Your task to perform on an android device: Show me popular videos on Youtube Image 0: 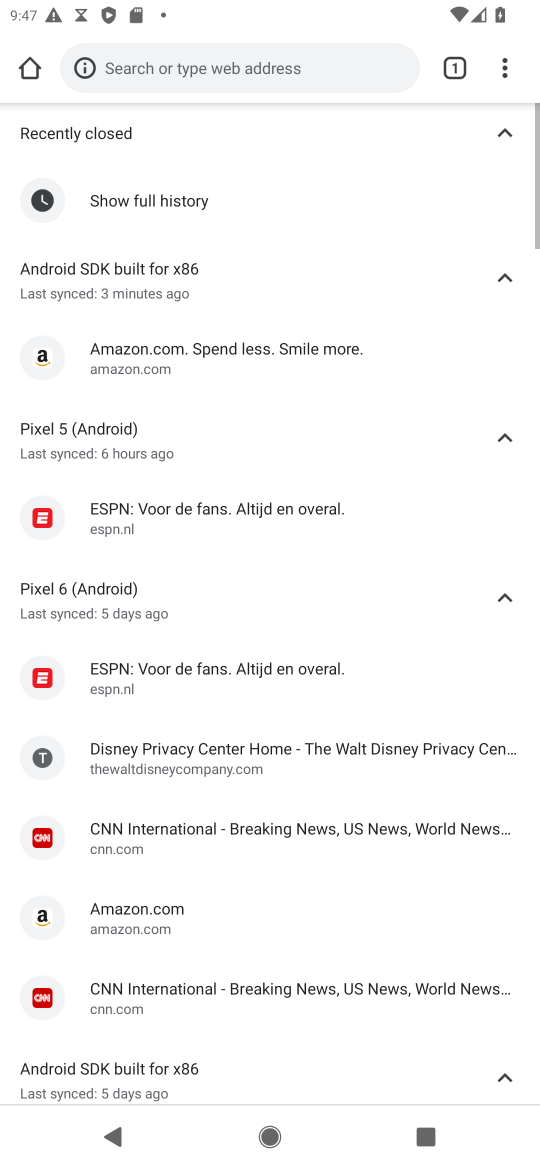
Step 0: press home button
Your task to perform on an android device: Show me popular videos on Youtube Image 1: 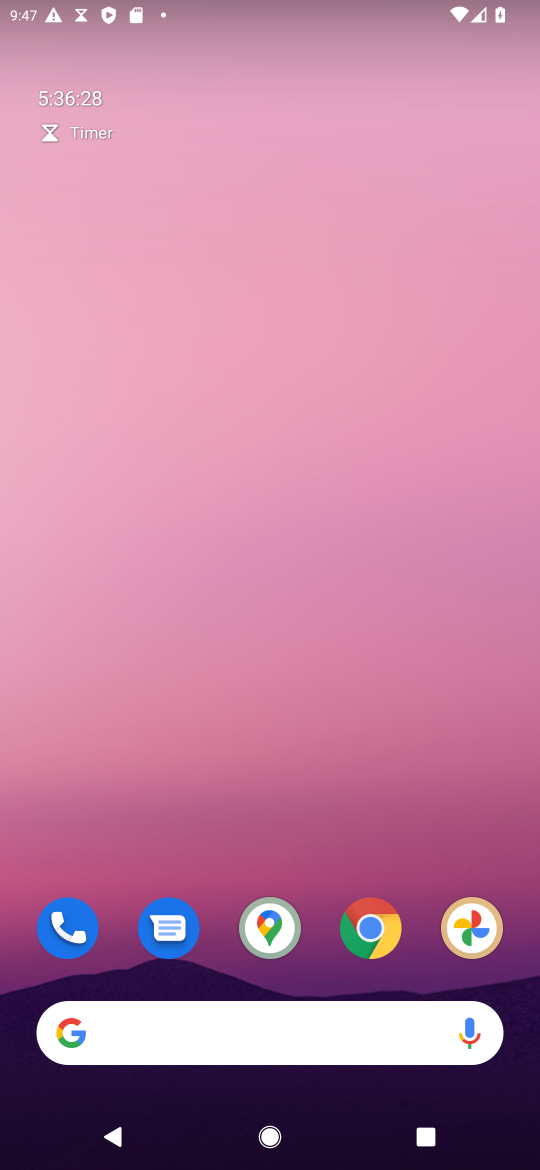
Step 1: drag from (420, 809) to (470, 31)
Your task to perform on an android device: Show me popular videos on Youtube Image 2: 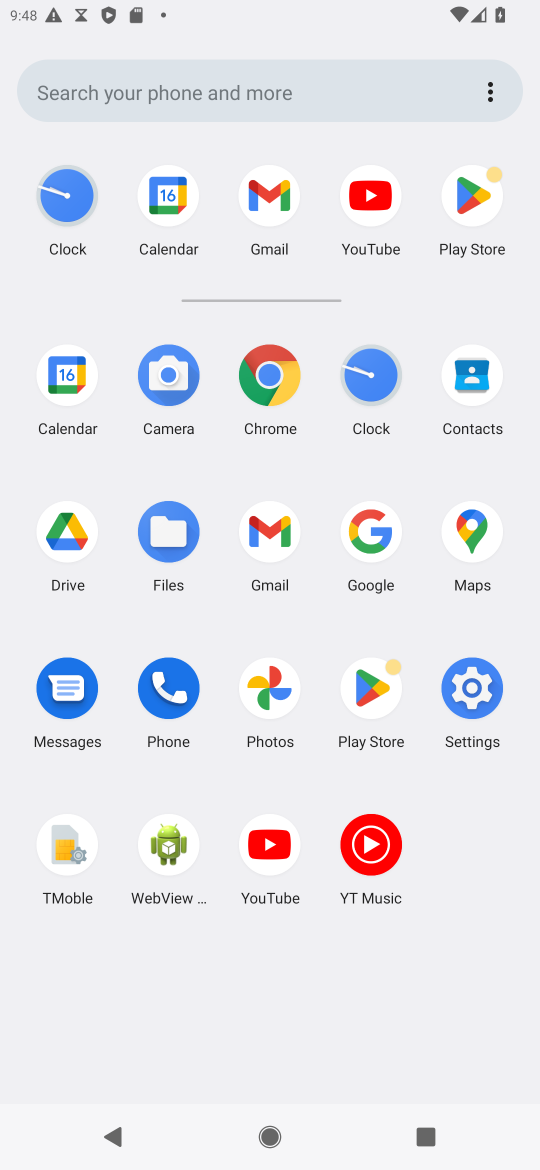
Step 2: click (254, 855)
Your task to perform on an android device: Show me popular videos on Youtube Image 3: 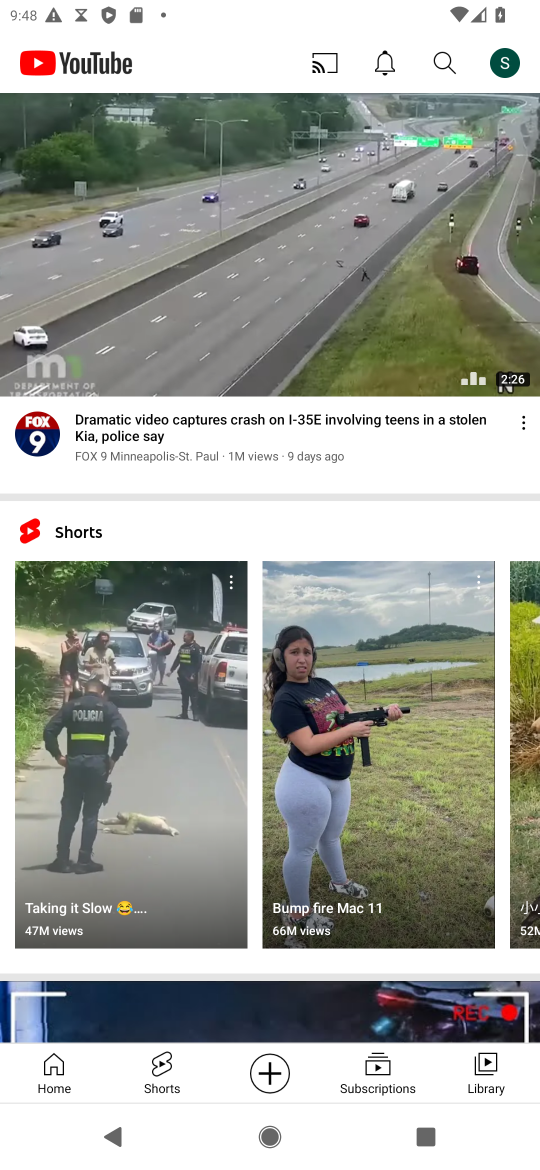
Step 3: click (44, 1074)
Your task to perform on an android device: Show me popular videos on Youtube Image 4: 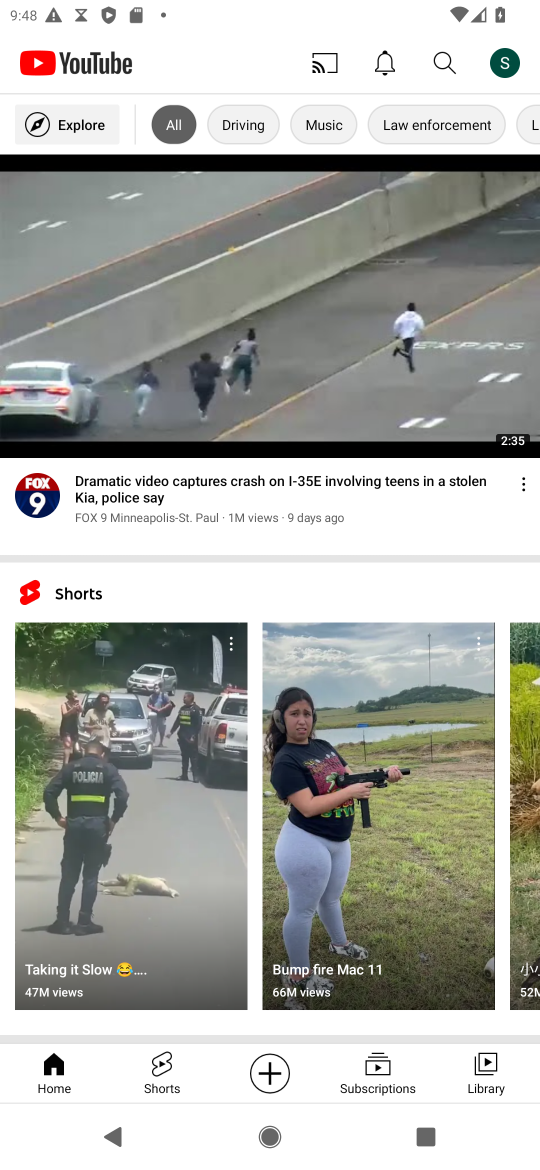
Step 4: click (69, 124)
Your task to perform on an android device: Show me popular videos on Youtube Image 5: 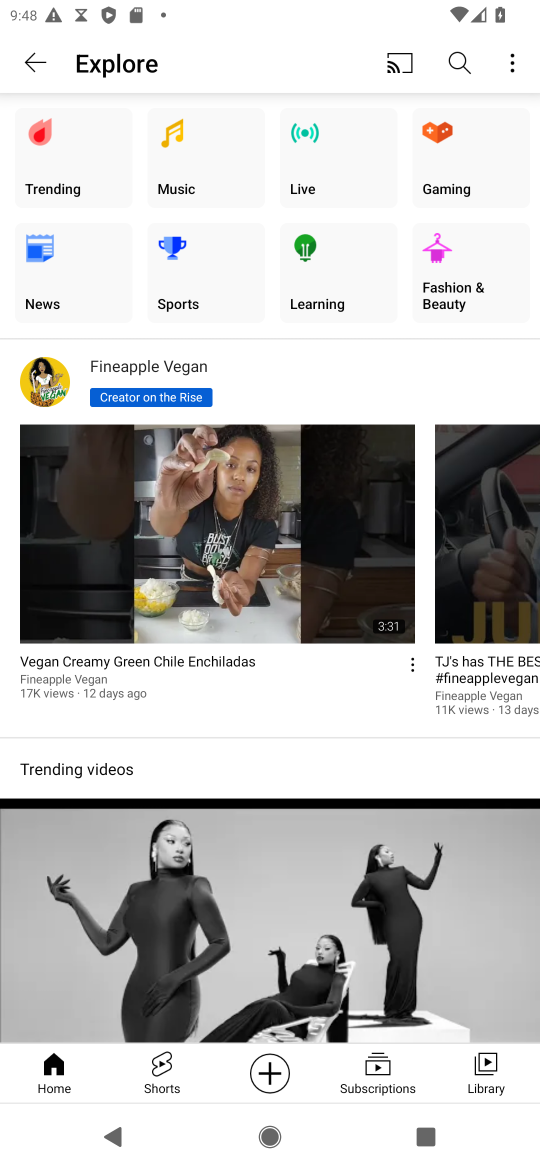
Step 5: click (34, 149)
Your task to perform on an android device: Show me popular videos on Youtube Image 6: 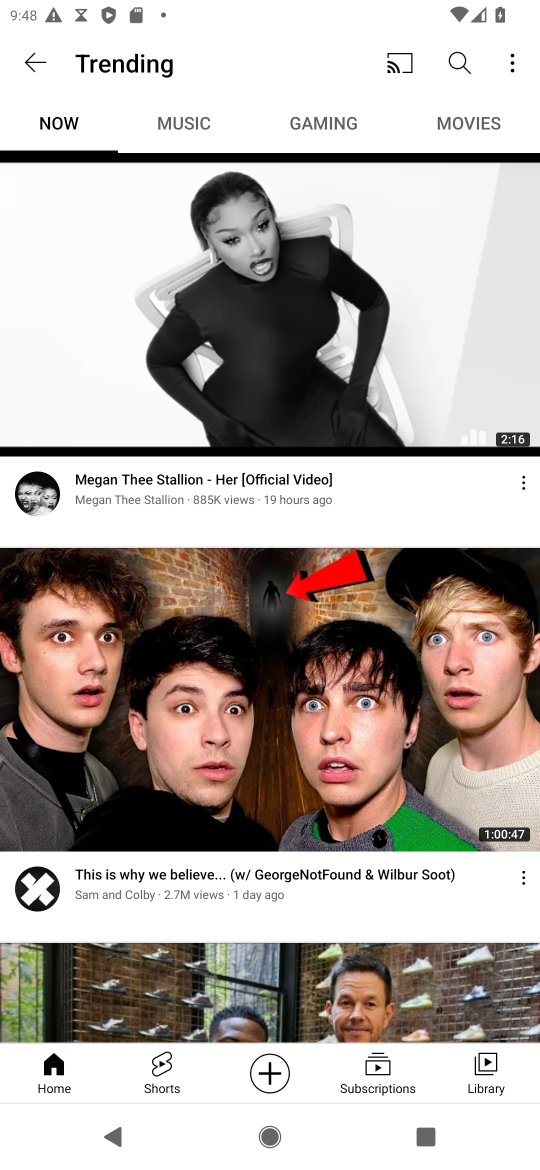
Step 6: task complete